Your task to perform on an android device: set default search engine in the chrome app Image 0: 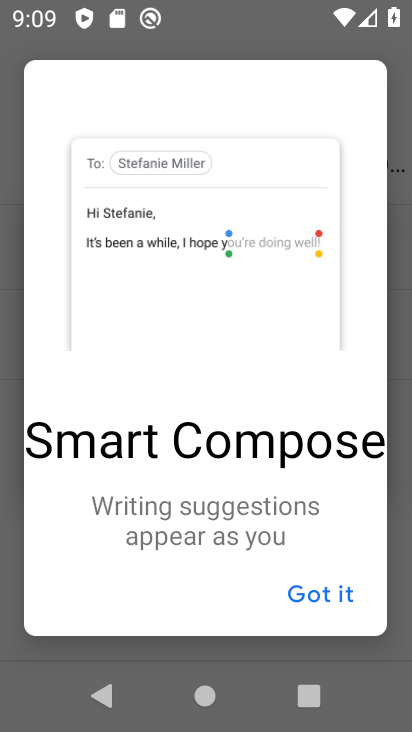
Step 0: press home button
Your task to perform on an android device: set default search engine in the chrome app Image 1: 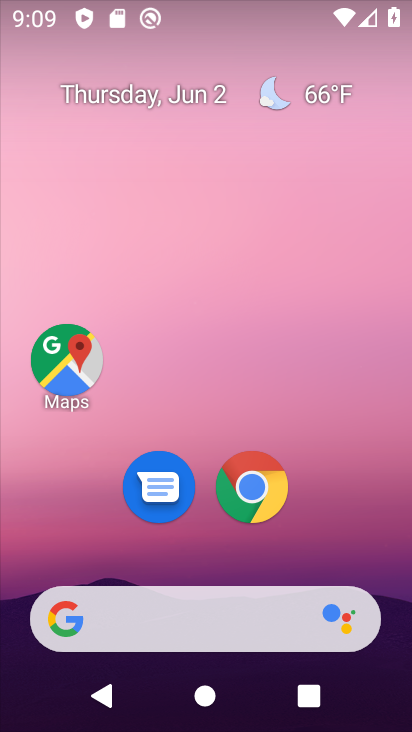
Step 1: click (259, 486)
Your task to perform on an android device: set default search engine in the chrome app Image 2: 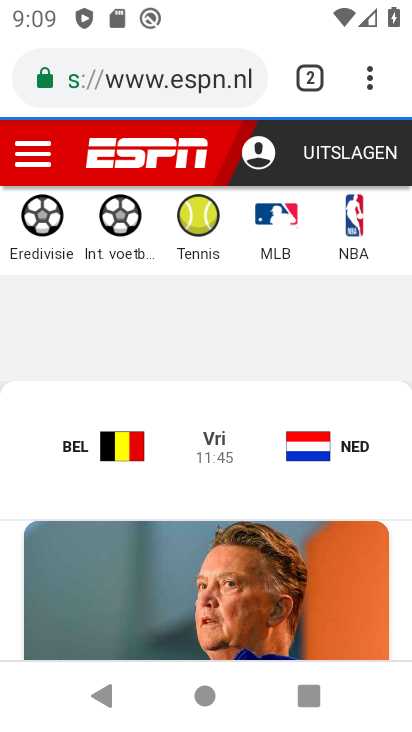
Step 2: click (371, 86)
Your task to perform on an android device: set default search engine in the chrome app Image 3: 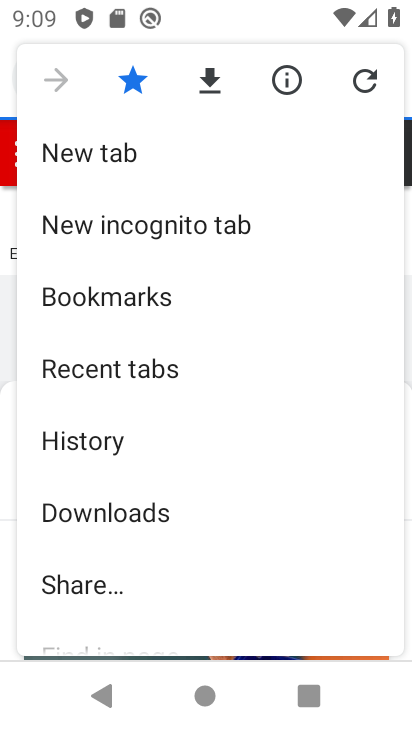
Step 3: drag from (176, 633) to (176, 175)
Your task to perform on an android device: set default search engine in the chrome app Image 4: 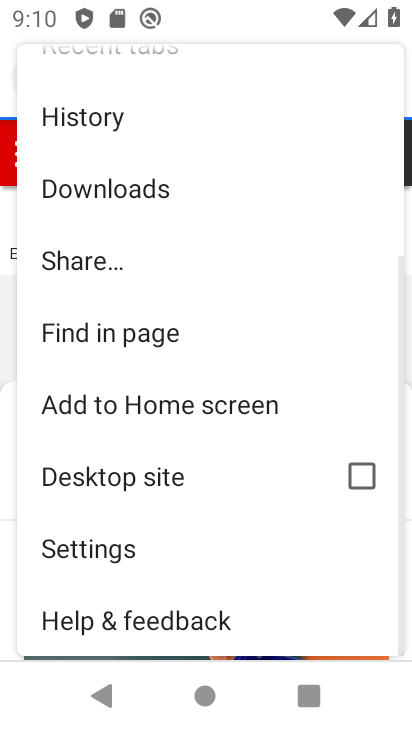
Step 4: click (114, 549)
Your task to perform on an android device: set default search engine in the chrome app Image 5: 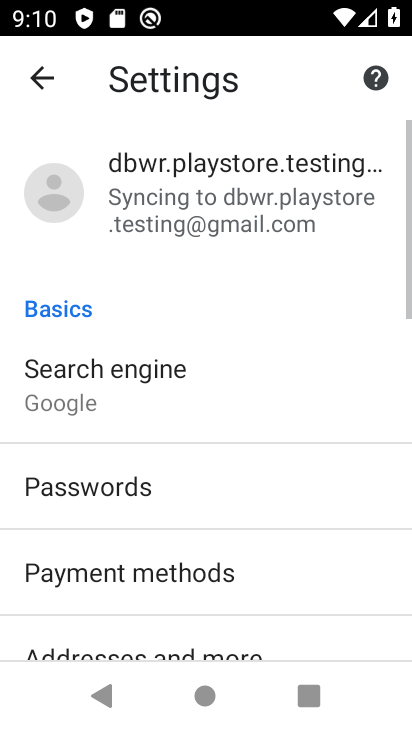
Step 5: drag from (172, 630) to (178, 483)
Your task to perform on an android device: set default search engine in the chrome app Image 6: 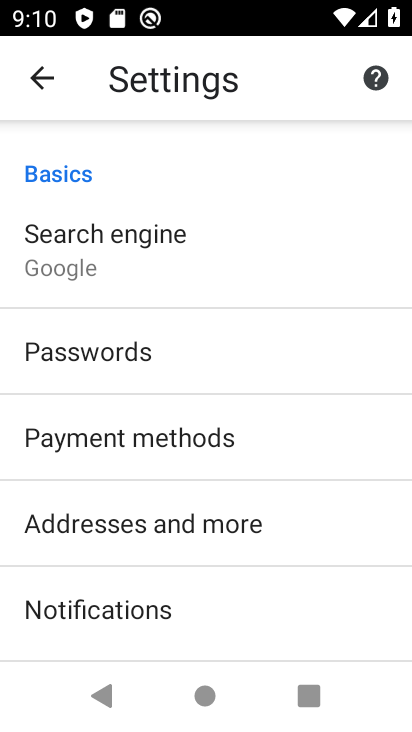
Step 6: click (91, 253)
Your task to perform on an android device: set default search engine in the chrome app Image 7: 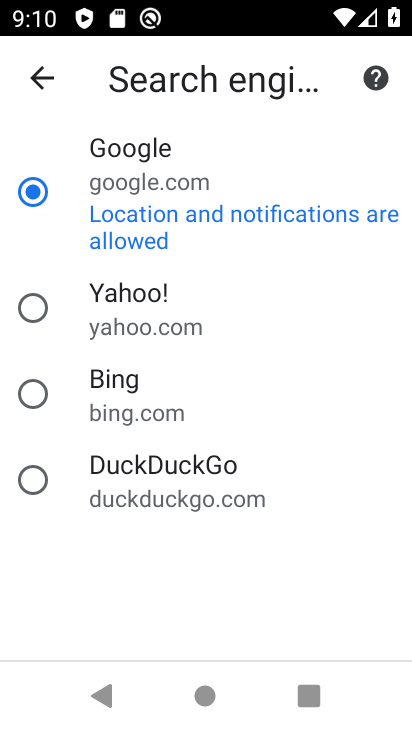
Step 7: click (39, 310)
Your task to perform on an android device: set default search engine in the chrome app Image 8: 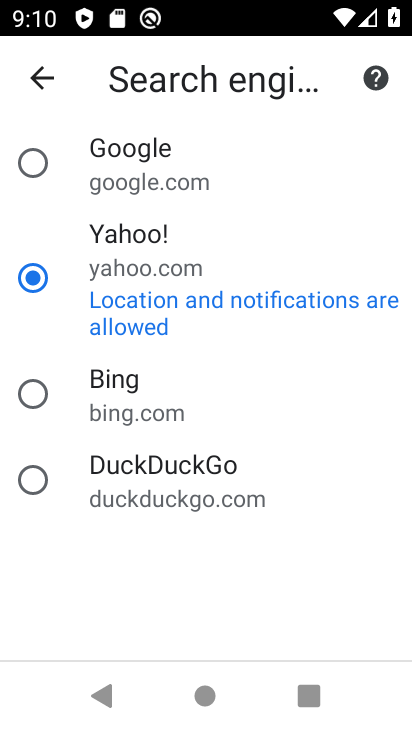
Step 8: task complete